Your task to perform on an android device: Open display settings Image 0: 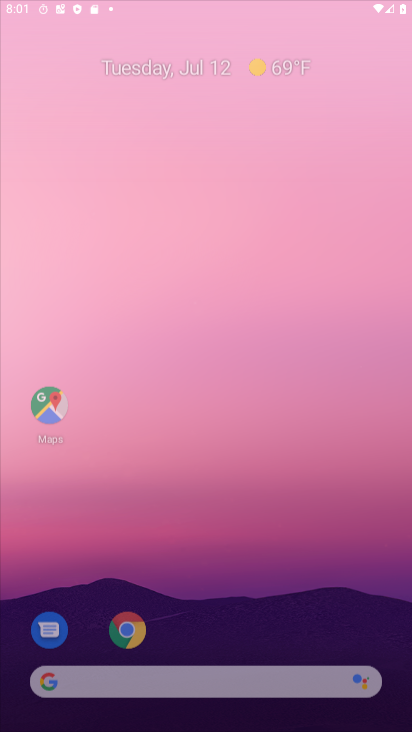
Step 0: press home button
Your task to perform on an android device: Open display settings Image 1: 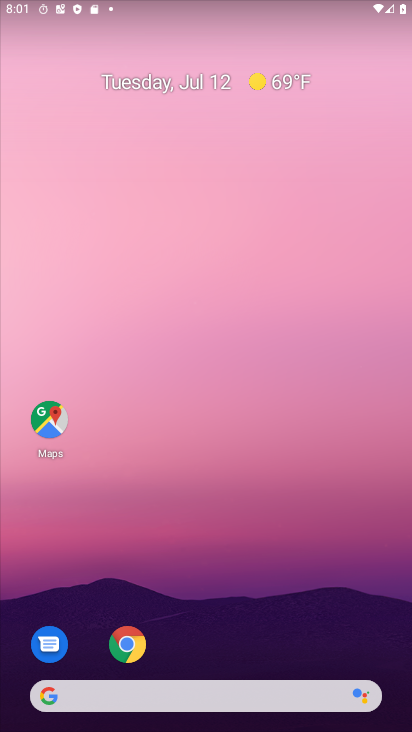
Step 1: drag from (215, 667) to (250, 15)
Your task to perform on an android device: Open display settings Image 2: 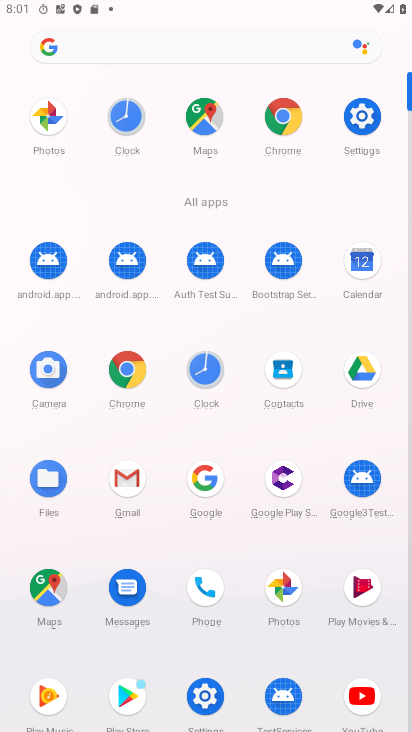
Step 2: click (353, 115)
Your task to perform on an android device: Open display settings Image 3: 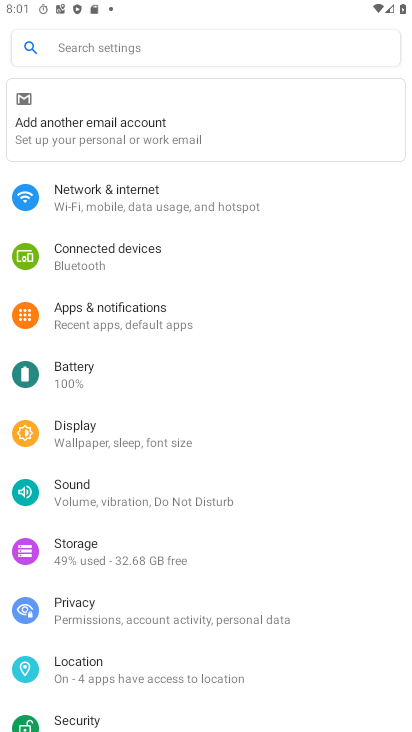
Step 3: click (119, 424)
Your task to perform on an android device: Open display settings Image 4: 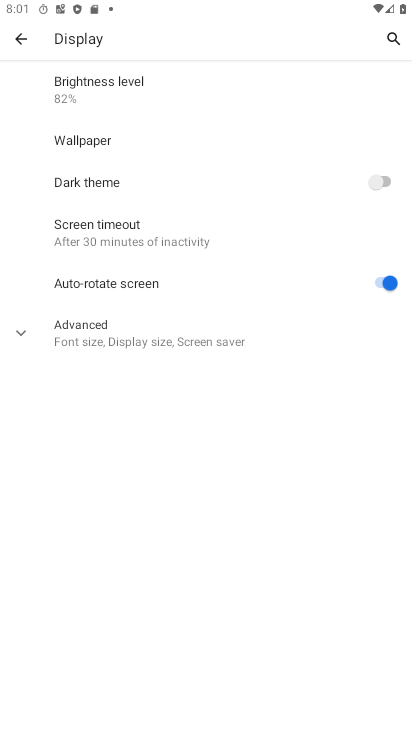
Step 4: click (25, 329)
Your task to perform on an android device: Open display settings Image 5: 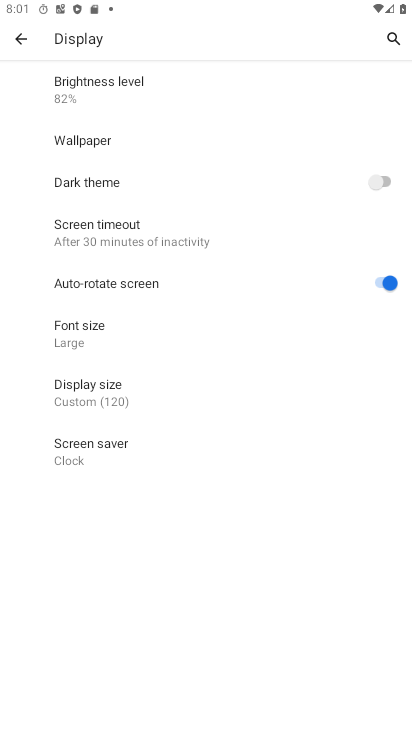
Step 5: task complete